Your task to perform on an android device: show emergency info Image 0: 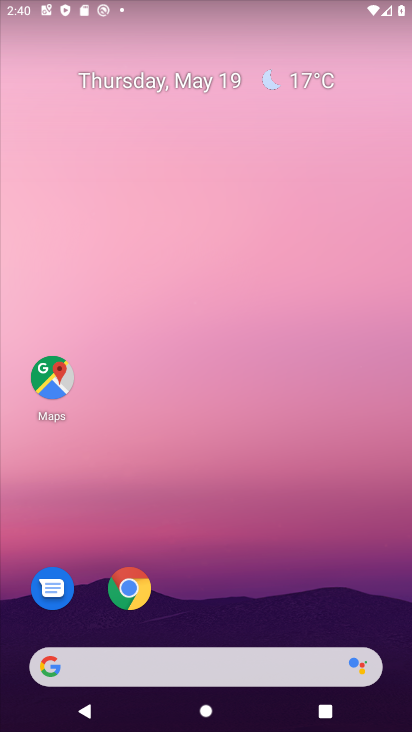
Step 0: drag from (224, 603) to (271, 77)
Your task to perform on an android device: show emergency info Image 1: 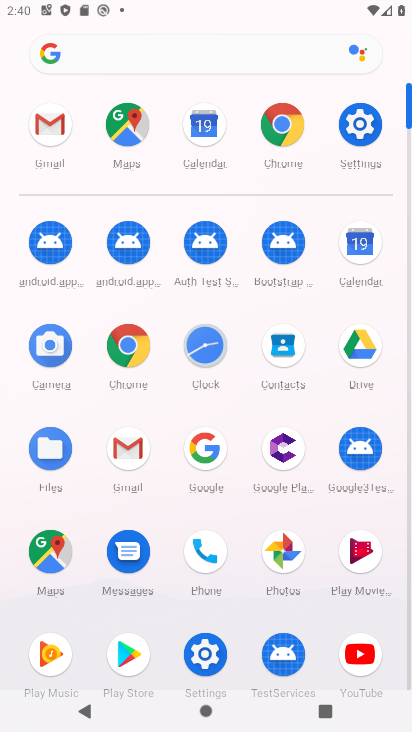
Step 1: click (355, 130)
Your task to perform on an android device: show emergency info Image 2: 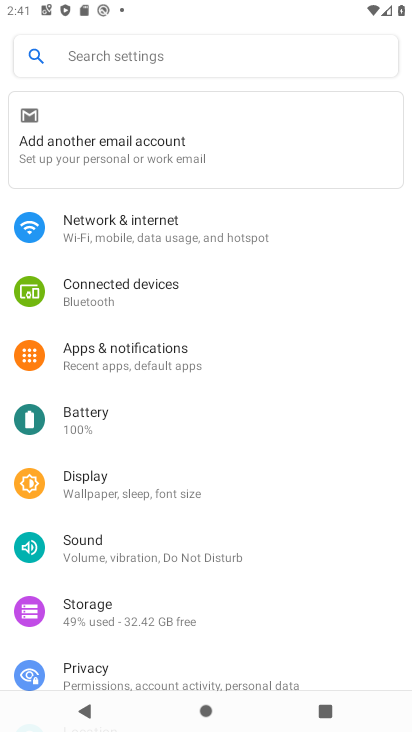
Step 2: drag from (137, 577) to (236, 110)
Your task to perform on an android device: show emergency info Image 3: 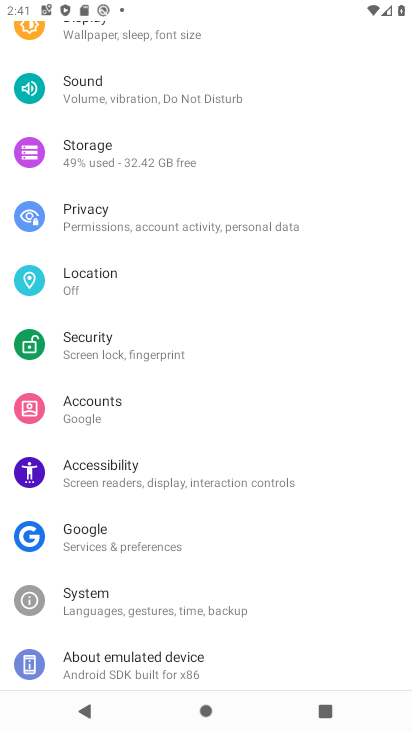
Step 3: drag from (143, 598) to (288, 149)
Your task to perform on an android device: show emergency info Image 4: 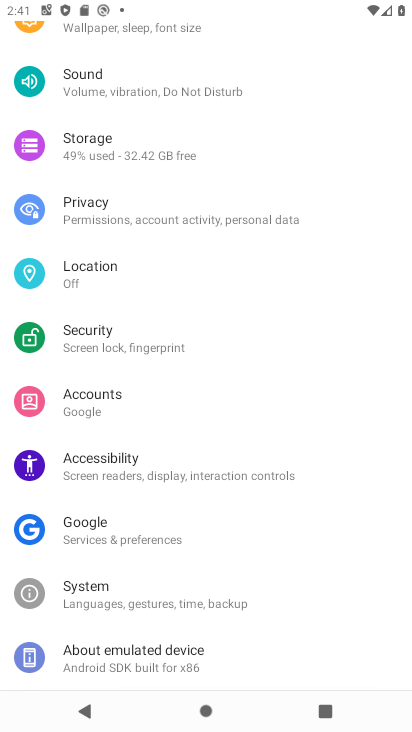
Step 4: click (114, 652)
Your task to perform on an android device: show emergency info Image 5: 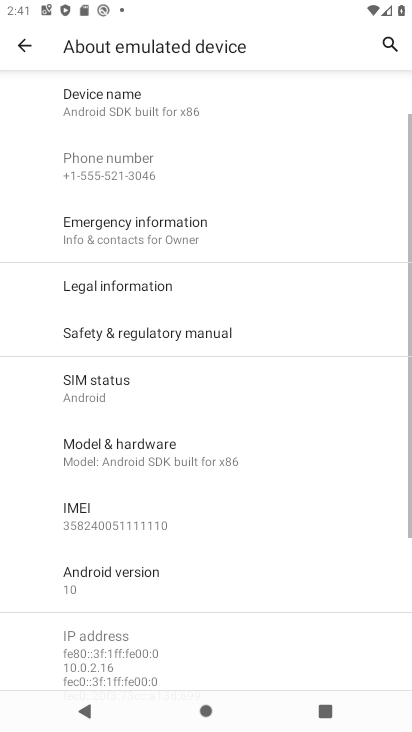
Step 5: click (153, 237)
Your task to perform on an android device: show emergency info Image 6: 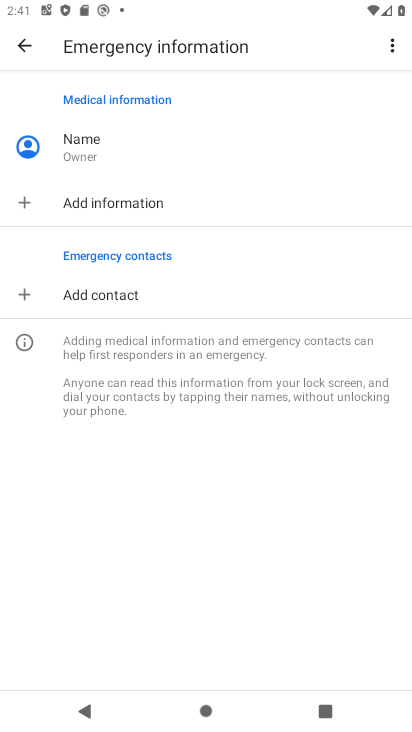
Step 6: task complete